Your task to perform on an android device: Do I have any events tomorrow? Image 0: 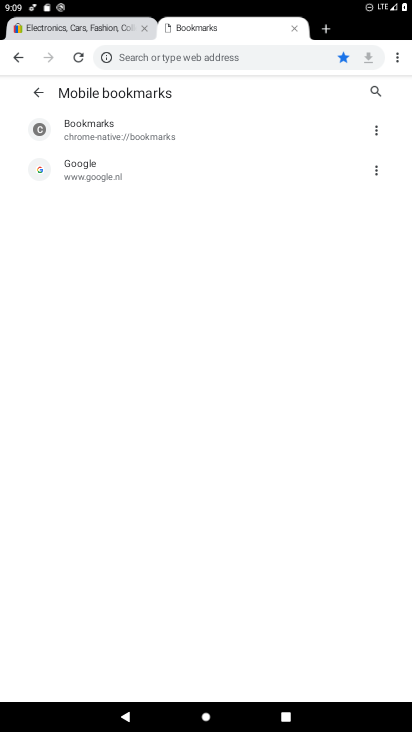
Step 0: press home button
Your task to perform on an android device: Do I have any events tomorrow? Image 1: 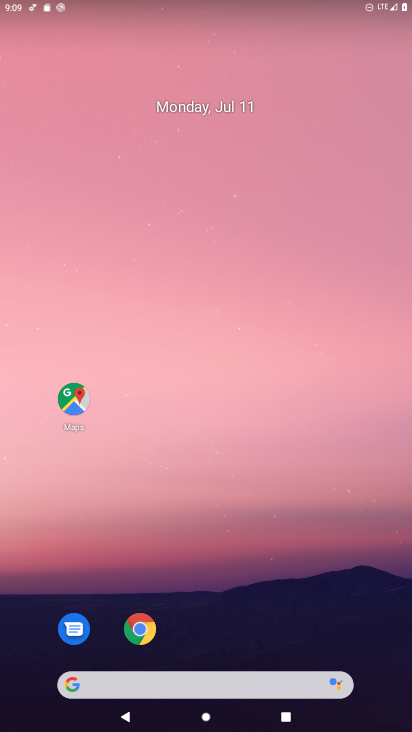
Step 1: click (224, 103)
Your task to perform on an android device: Do I have any events tomorrow? Image 2: 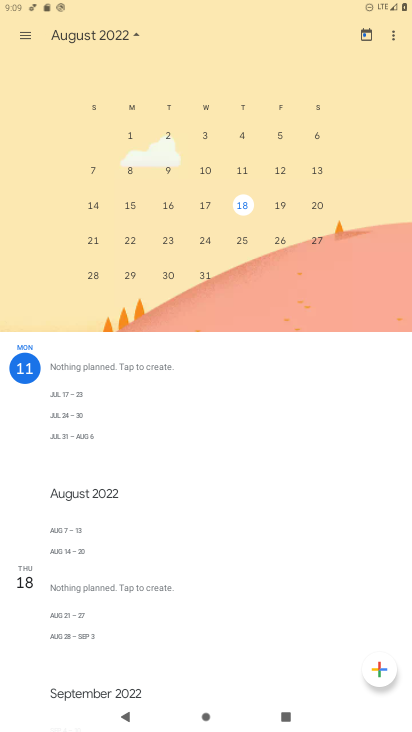
Step 2: click (23, 33)
Your task to perform on an android device: Do I have any events tomorrow? Image 3: 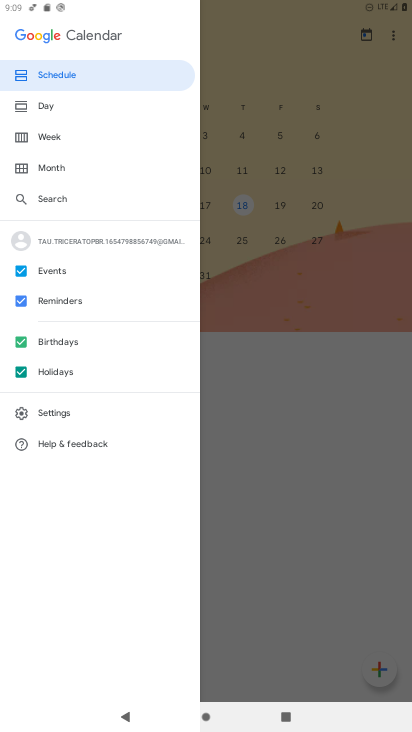
Step 3: click (17, 299)
Your task to perform on an android device: Do I have any events tomorrow? Image 4: 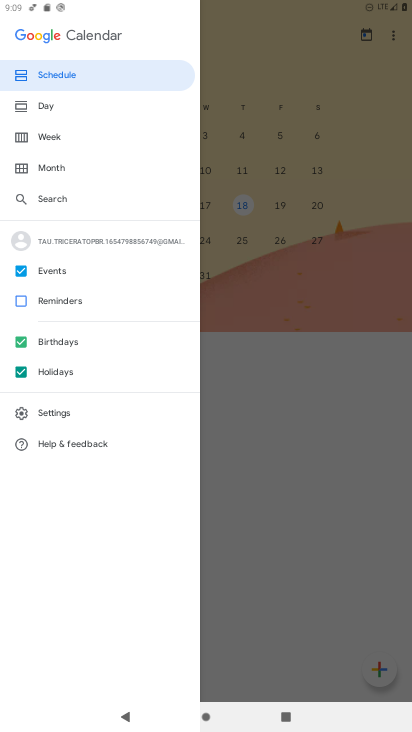
Step 4: click (20, 344)
Your task to perform on an android device: Do I have any events tomorrow? Image 5: 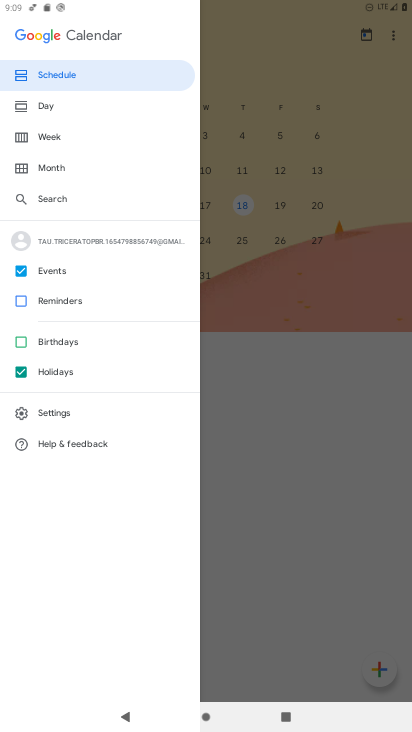
Step 5: click (20, 373)
Your task to perform on an android device: Do I have any events tomorrow? Image 6: 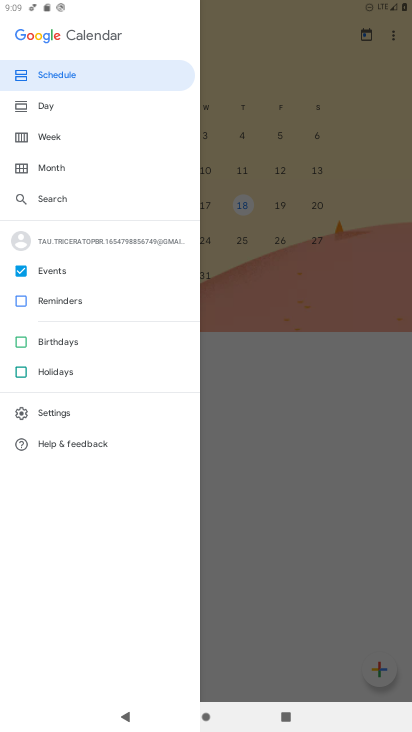
Step 6: click (74, 111)
Your task to perform on an android device: Do I have any events tomorrow? Image 7: 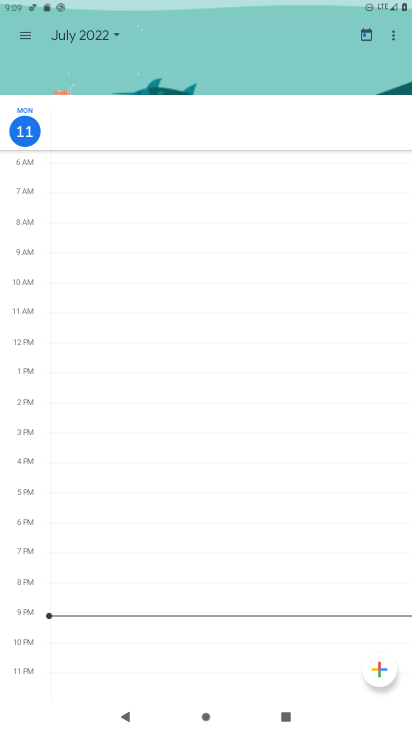
Step 7: click (101, 44)
Your task to perform on an android device: Do I have any events tomorrow? Image 8: 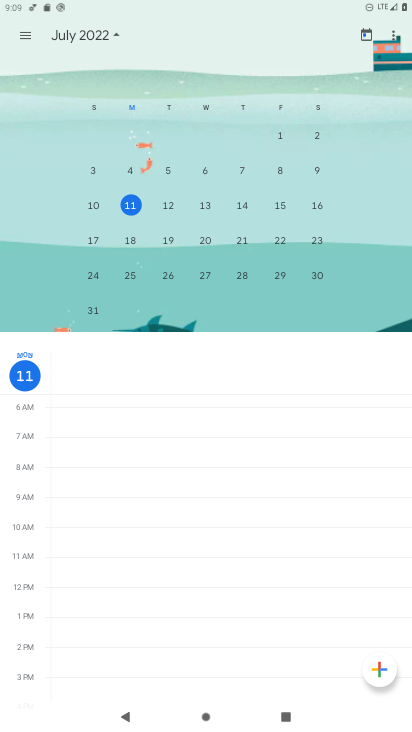
Step 8: click (175, 203)
Your task to perform on an android device: Do I have any events tomorrow? Image 9: 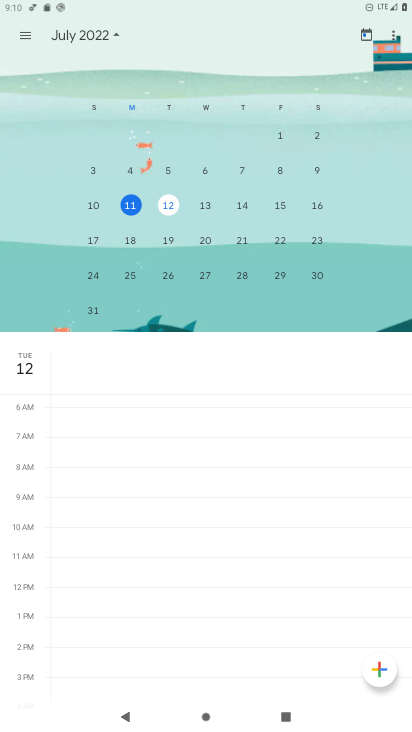
Step 9: task complete